Your task to perform on an android device: Search for Italian restaurants on Maps Image 0: 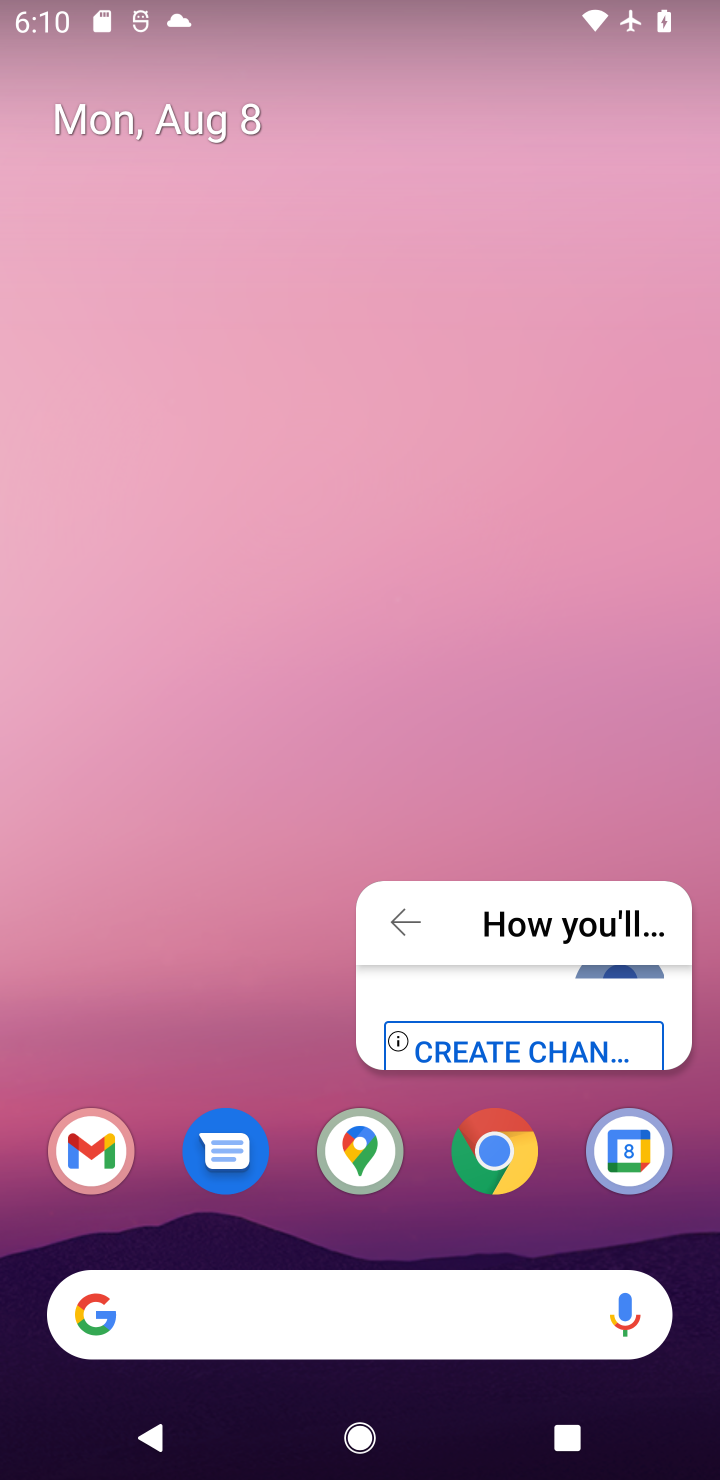
Step 0: click (357, 1146)
Your task to perform on an android device: Search for Italian restaurants on Maps Image 1: 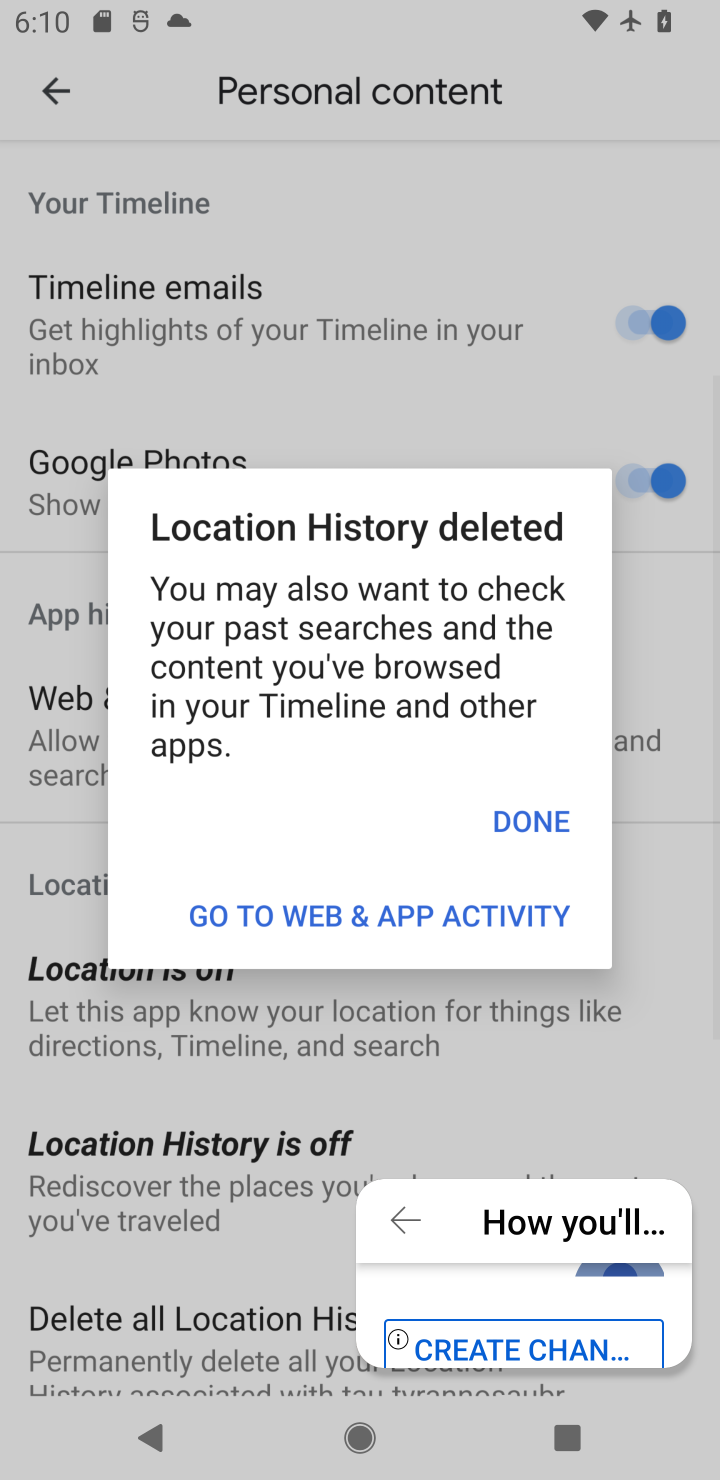
Step 1: drag from (482, 1243) to (346, 1391)
Your task to perform on an android device: Search for Italian restaurants on Maps Image 2: 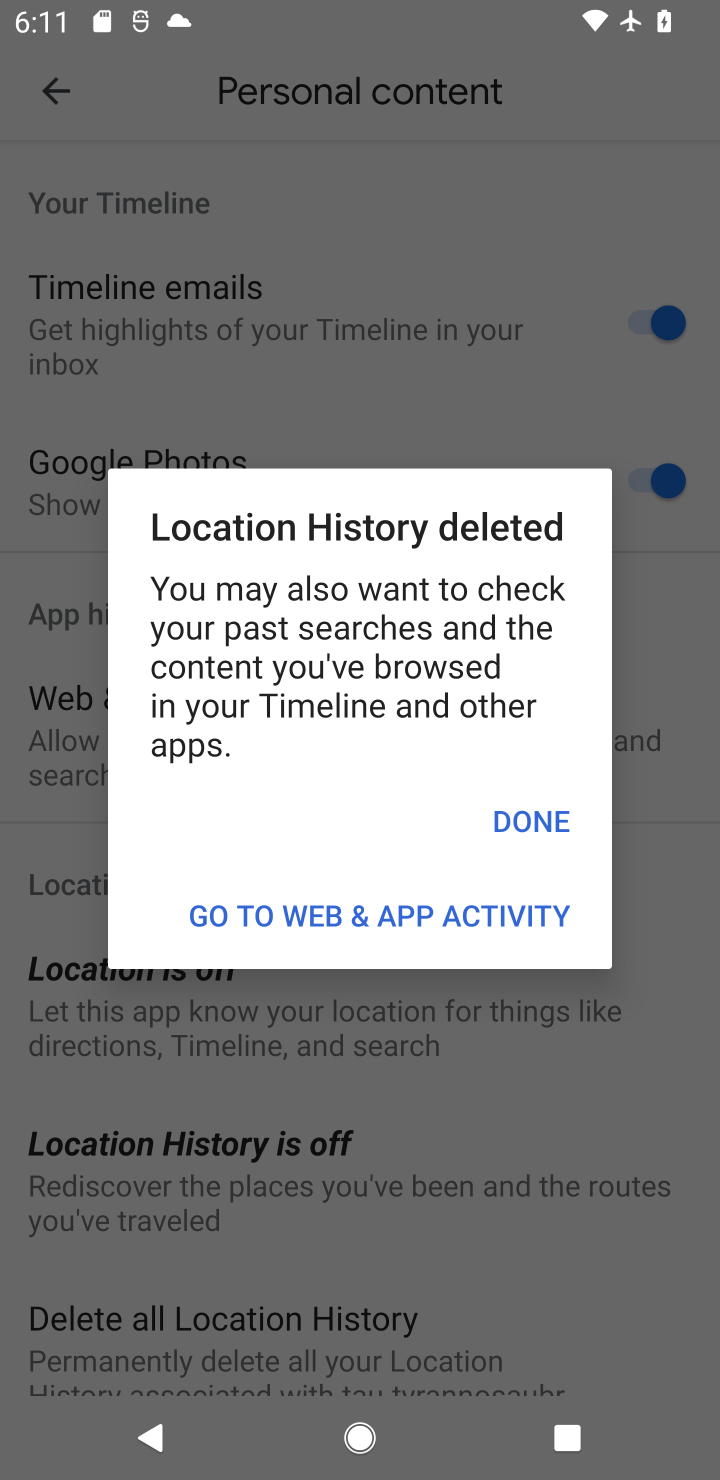
Step 2: press back button
Your task to perform on an android device: Search for Italian restaurants on Maps Image 3: 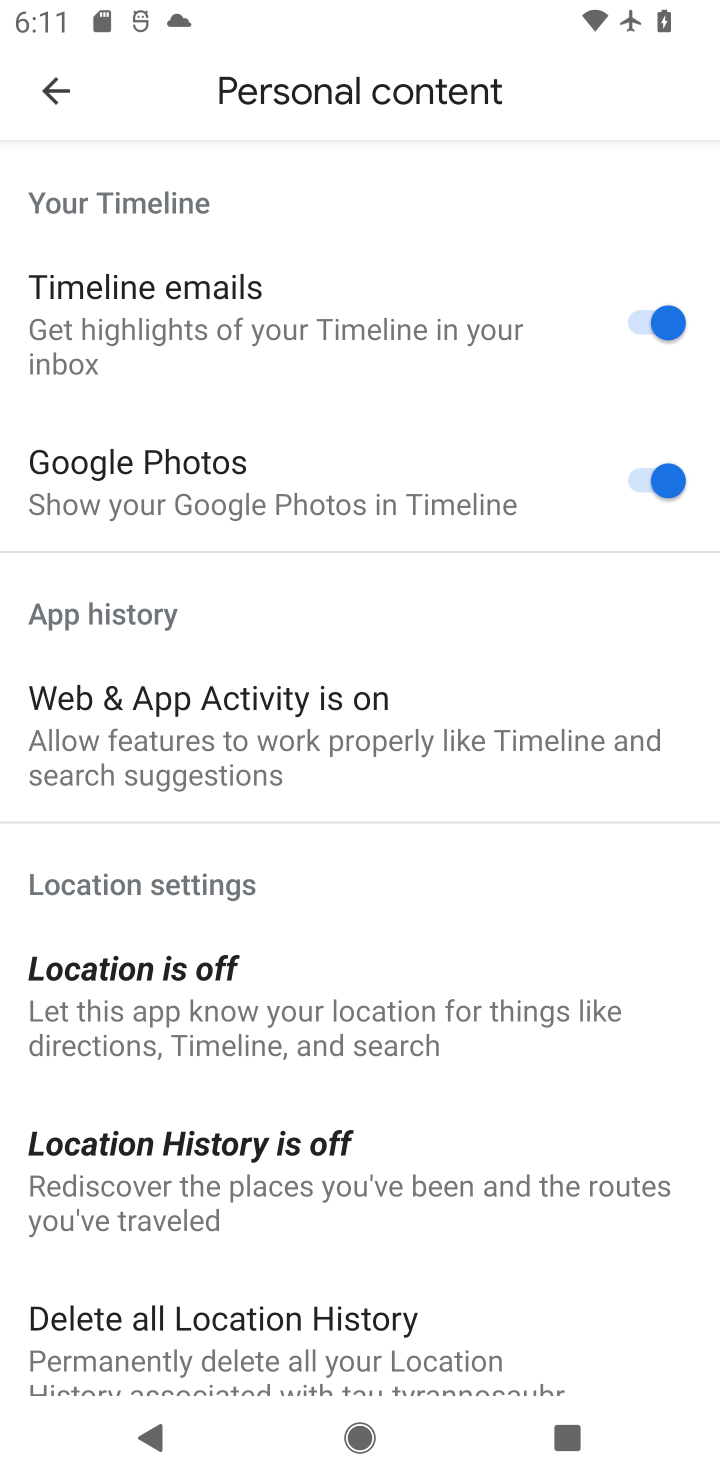
Step 3: click (68, 78)
Your task to perform on an android device: Search for Italian restaurants on Maps Image 4: 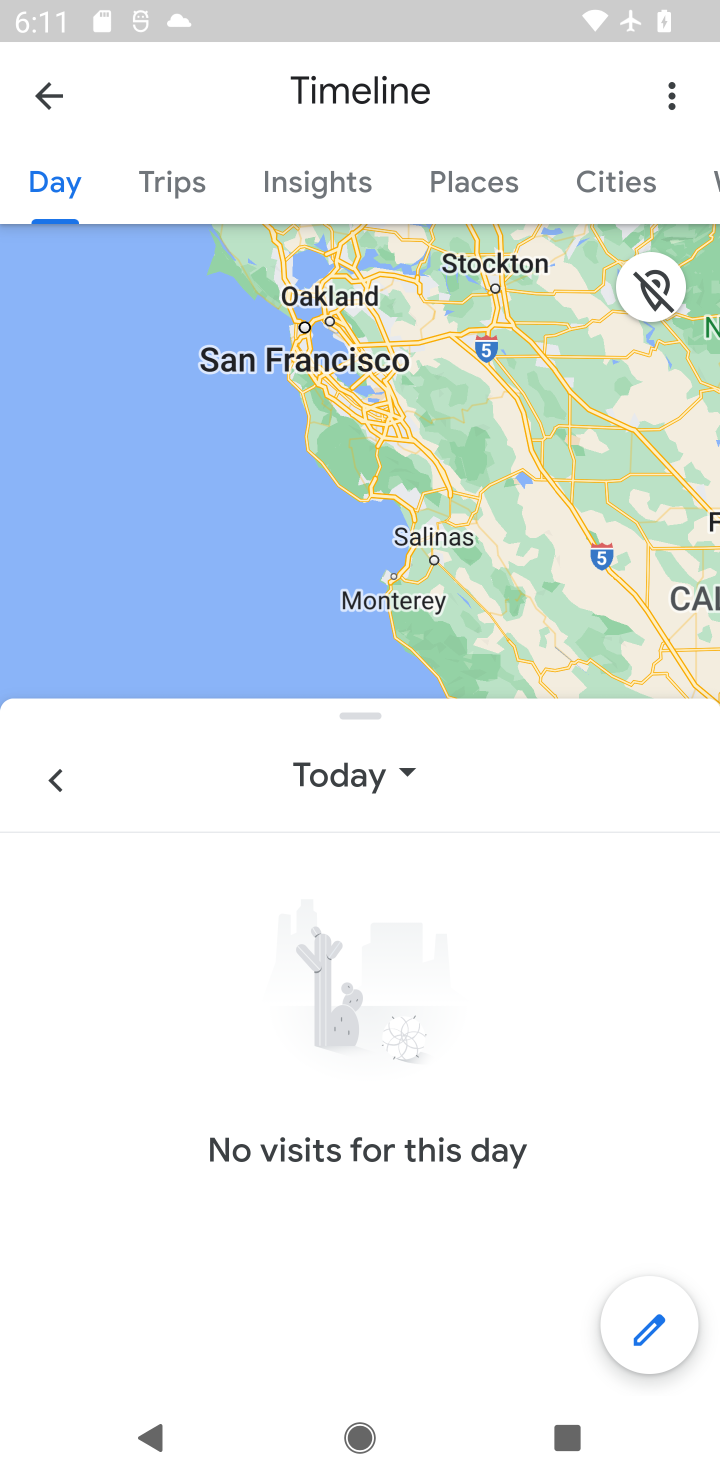
Step 4: click (59, 131)
Your task to perform on an android device: Search for Italian restaurants on Maps Image 5: 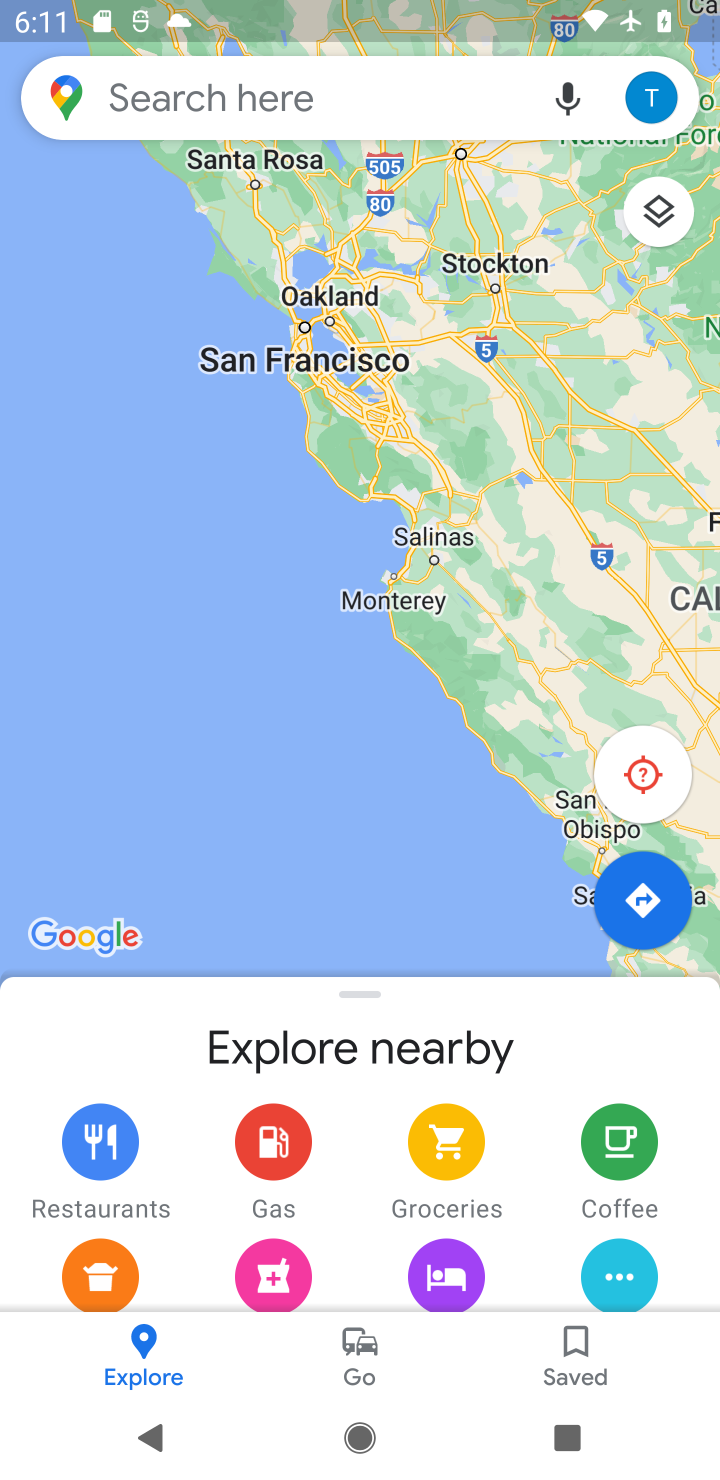
Step 5: click (198, 67)
Your task to perform on an android device: Search for Italian restaurants on Maps Image 6: 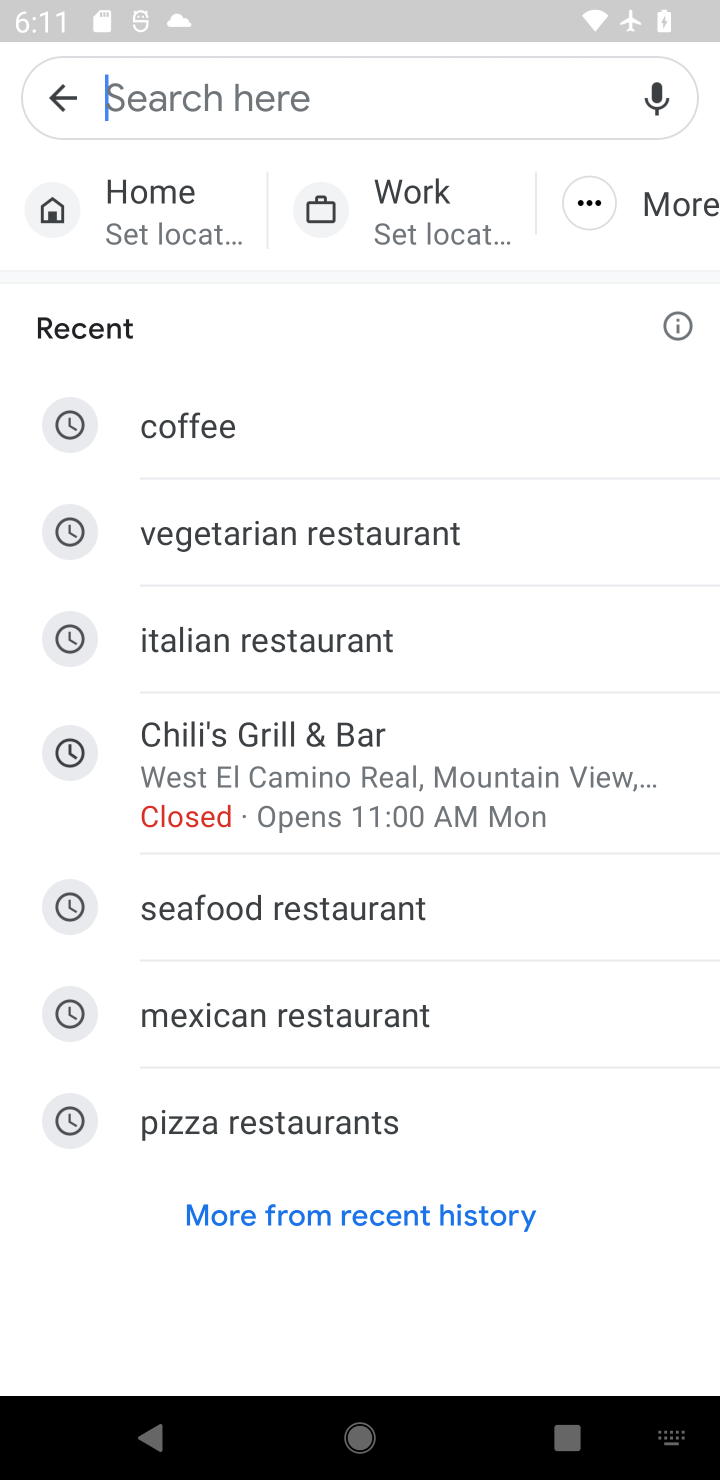
Step 6: type "Italian restaurants"
Your task to perform on an android device: Search for Italian restaurants on Maps Image 7: 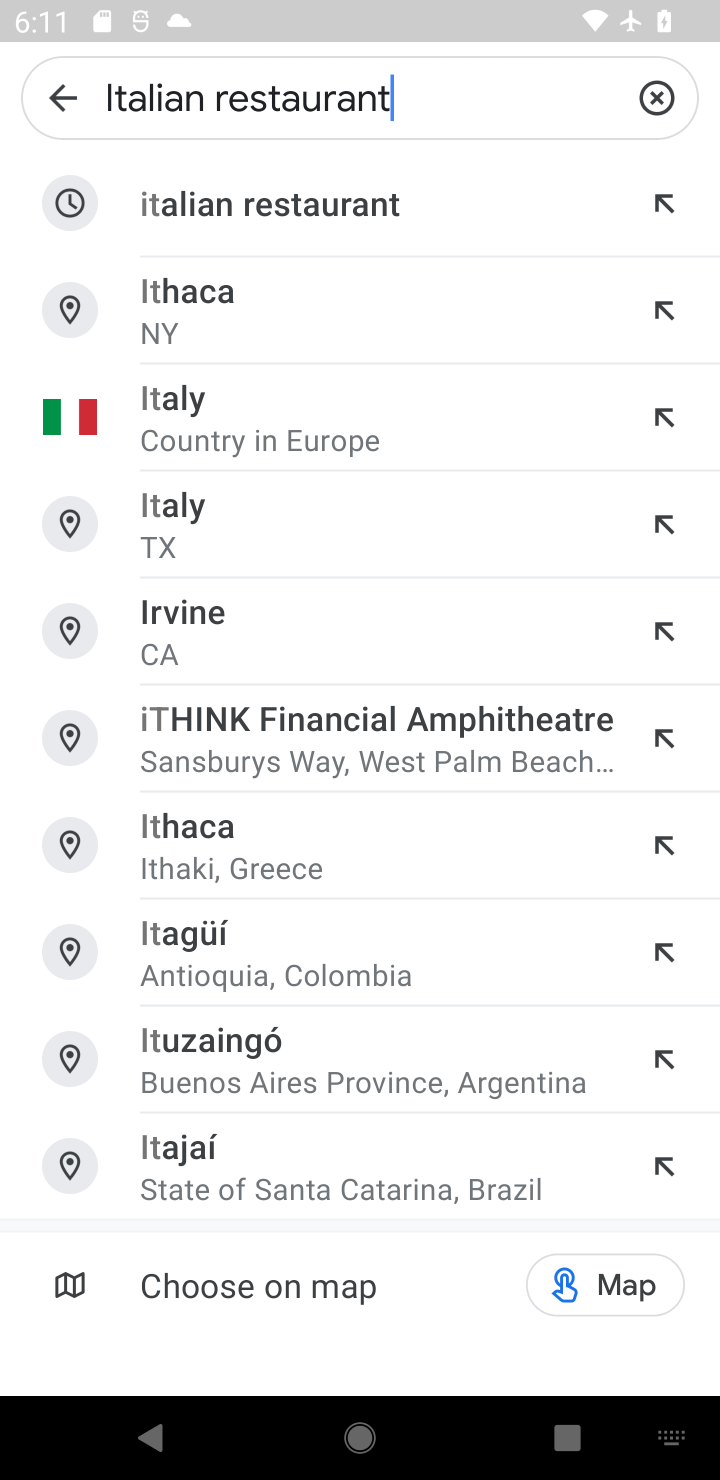
Step 7: type ""
Your task to perform on an android device: Search for Italian restaurants on Maps Image 8: 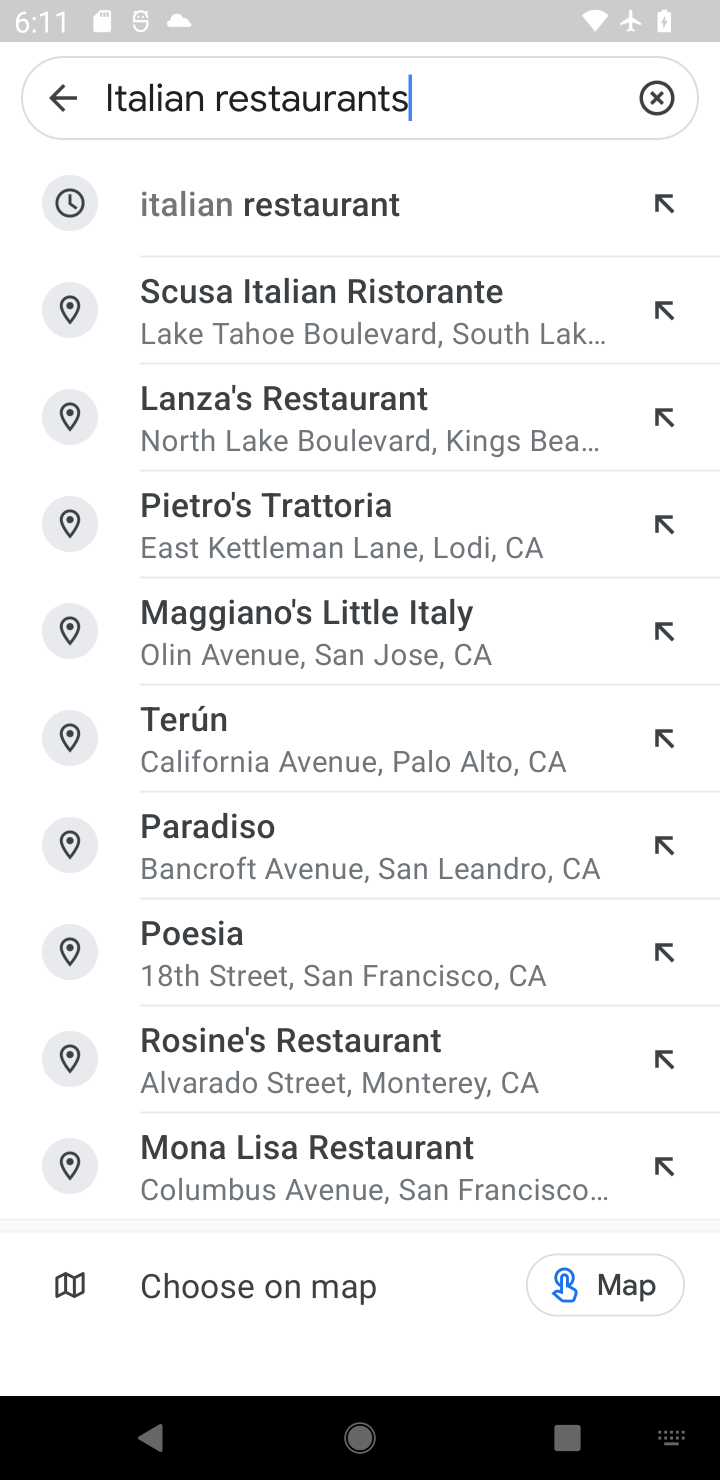
Step 8: click (281, 201)
Your task to perform on an android device: Search for Italian restaurants on Maps Image 9: 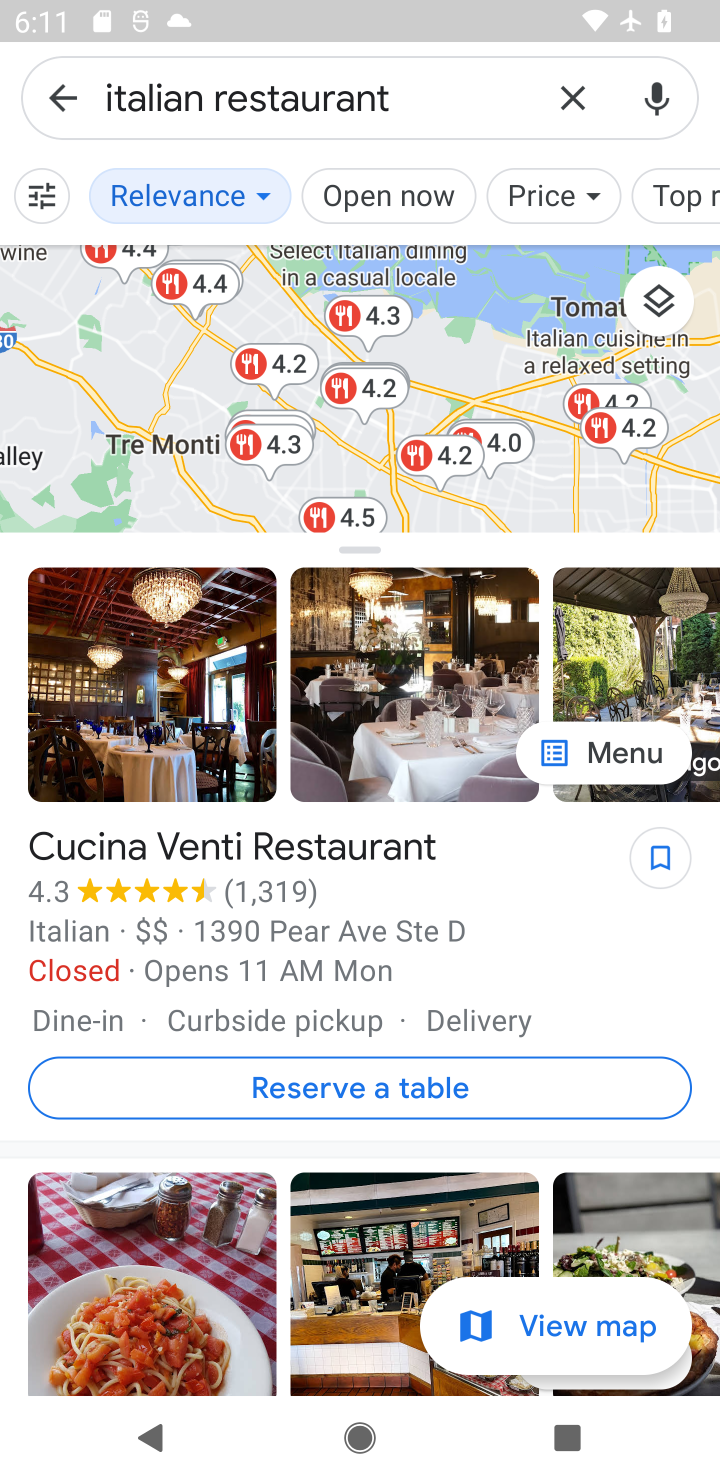
Step 9: task complete